Your task to perform on an android device: Open settings Image 0: 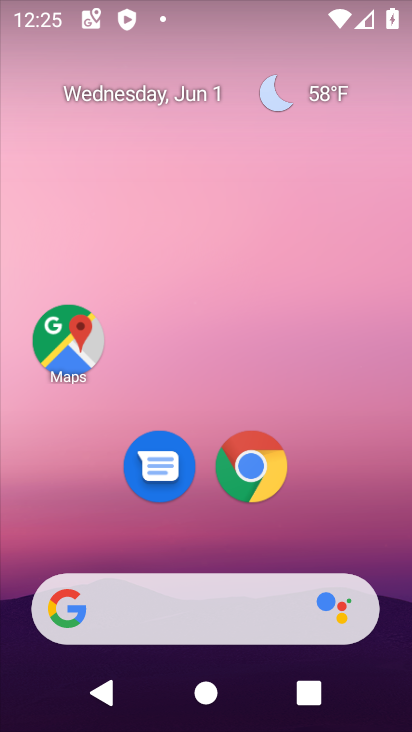
Step 0: drag from (391, 580) to (344, 107)
Your task to perform on an android device: Open settings Image 1: 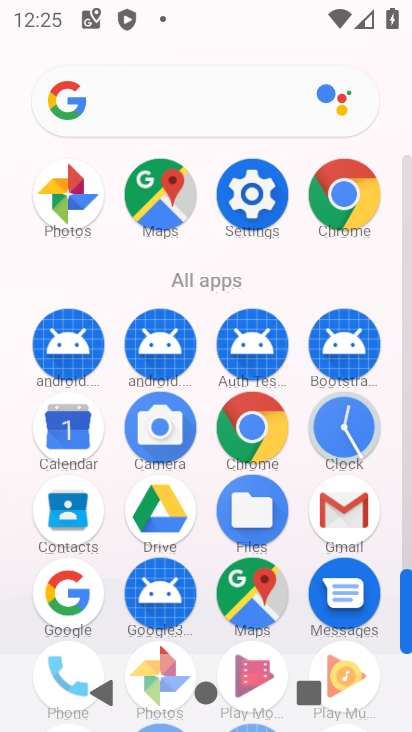
Step 1: click (261, 212)
Your task to perform on an android device: Open settings Image 2: 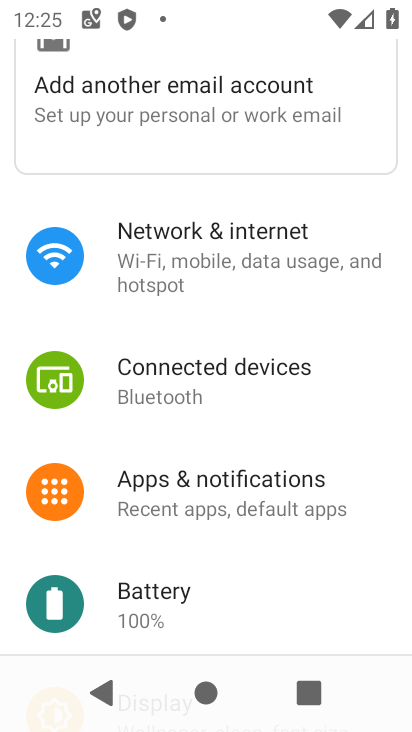
Step 2: task complete